Your task to perform on an android device: Is it going to rain this weekend? Image 0: 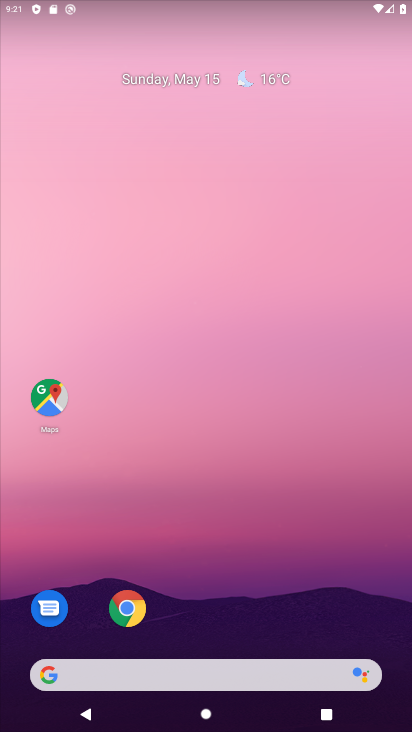
Step 0: drag from (233, 665) to (187, 112)
Your task to perform on an android device: Is it going to rain this weekend? Image 1: 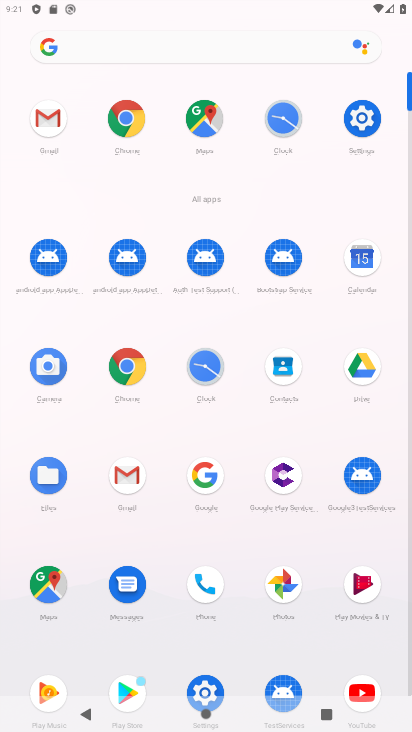
Step 1: click (206, 480)
Your task to perform on an android device: Is it going to rain this weekend? Image 2: 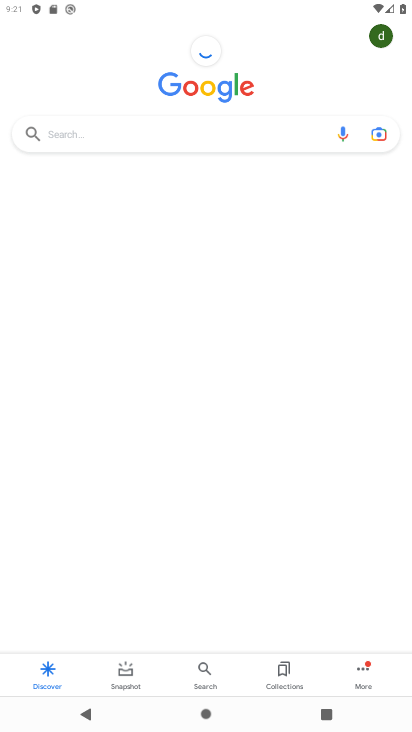
Step 2: click (114, 128)
Your task to perform on an android device: Is it going to rain this weekend? Image 3: 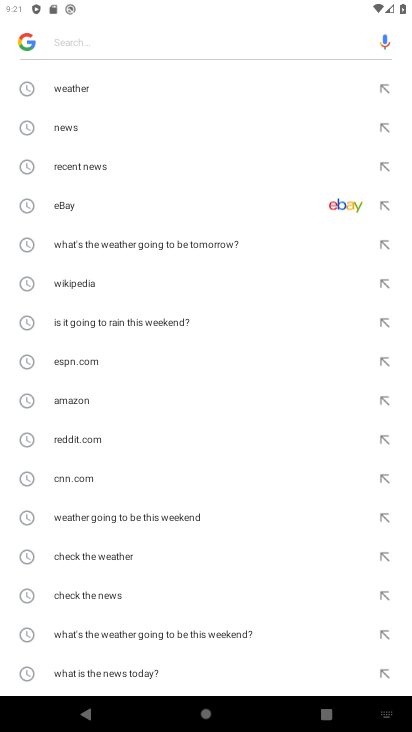
Step 3: click (77, 97)
Your task to perform on an android device: Is it going to rain this weekend? Image 4: 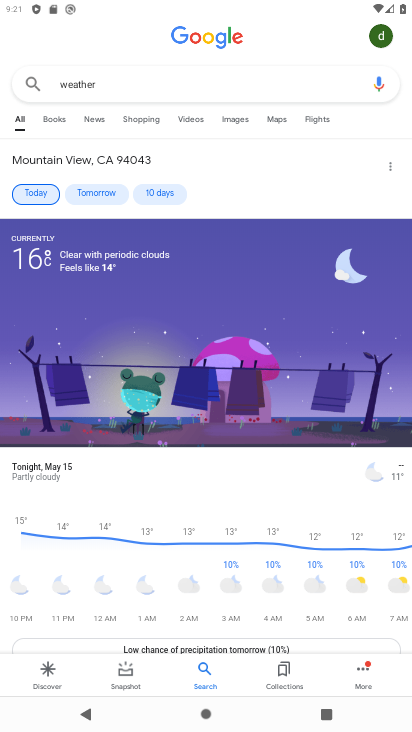
Step 4: task complete